Your task to perform on an android device: Toggle the flashlight Image 0: 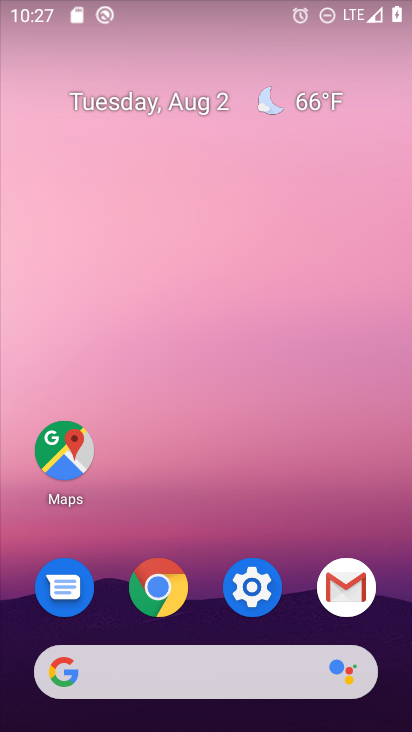
Step 0: press home button
Your task to perform on an android device: Toggle the flashlight Image 1: 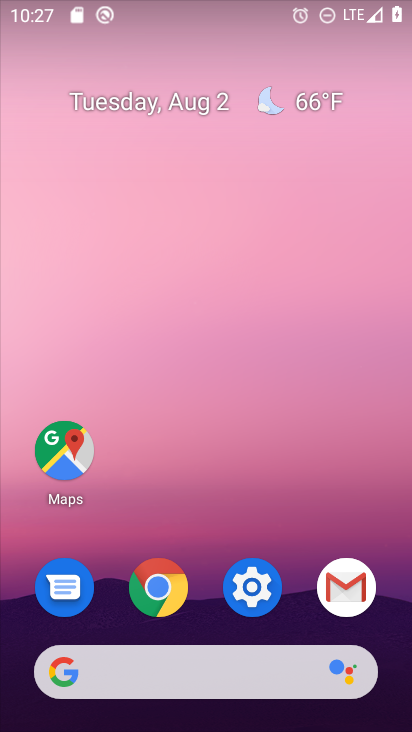
Step 1: click (246, 589)
Your task to perform on an android device: Toggle the flashlight Image 2: 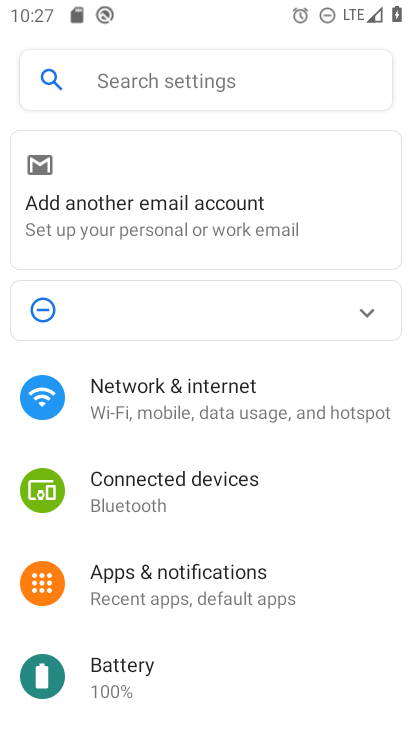
Step 2: click (148, 71)
Your task to perform on an android device: Toggle the flashlight Image 3: 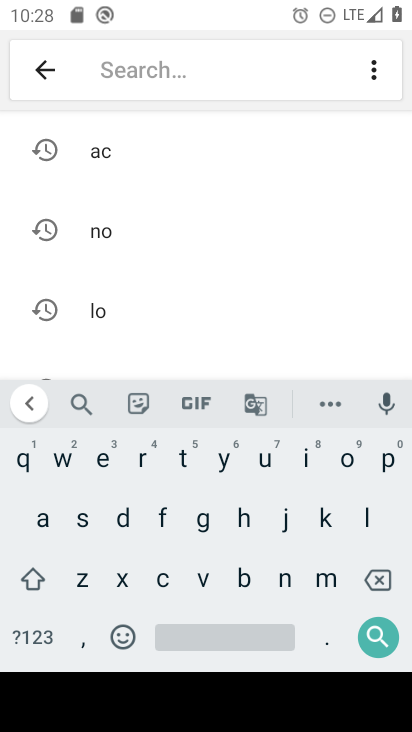
Step 3: click (155, 520)
Your task to perform on an android device: Toggle the flashlight Image 4: 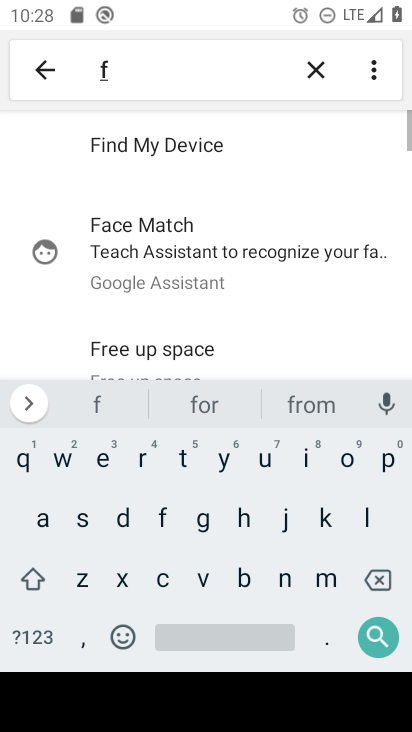
Step 4: click (358, 518)
Your task to perform on an android device: Toggle the flashlight Image 5: 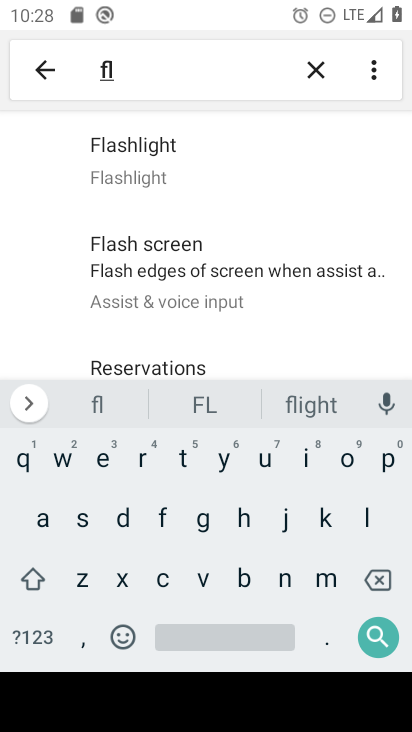
Step 5: click (116, 150)
Your task to perform on an android device: Toggle the flashlight Image 6: 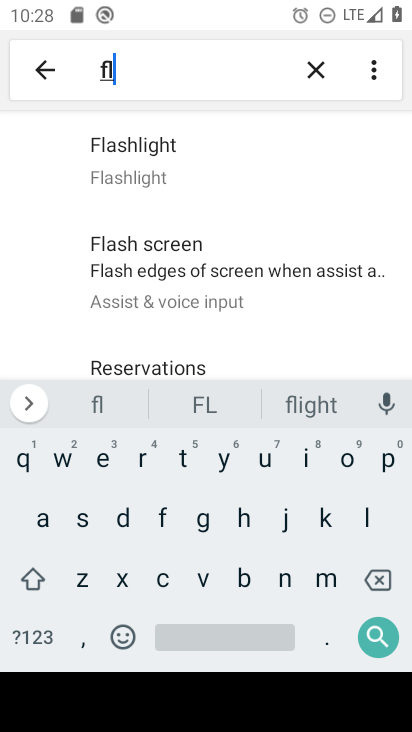
Step 6: task complete